Your task to perform on an android device: Go to network settings Image 0: 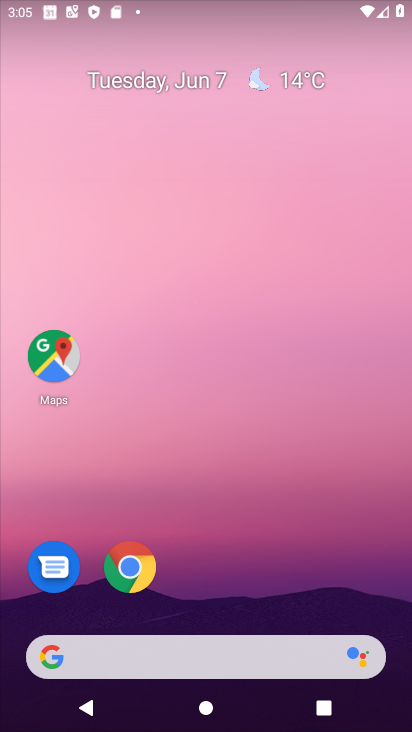
Step 0: drag from (196, 593) to (191, 240)
Your task to perform on an android device: Go to network settings Image 1: 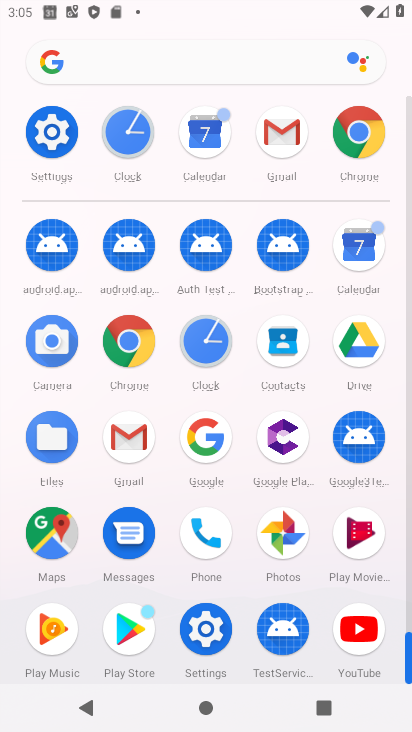
Step 1: click (77, 131)
Your task to perform on an android device: Go to network settings Image 2: 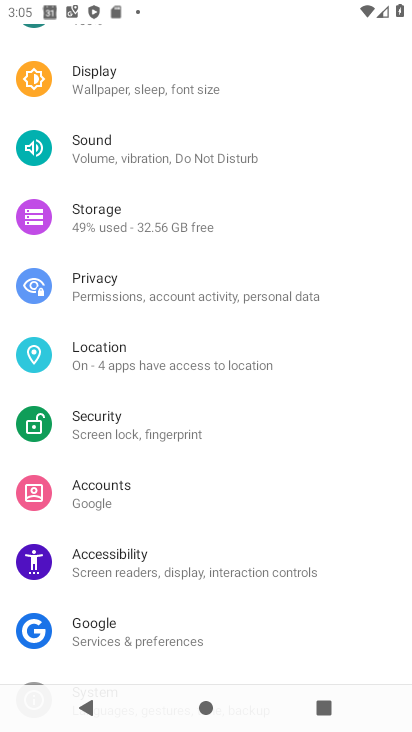
Step 2: drag from (169, 196) to (199, 509)
Your task to perform on an android device: Go to network settings Image 3: 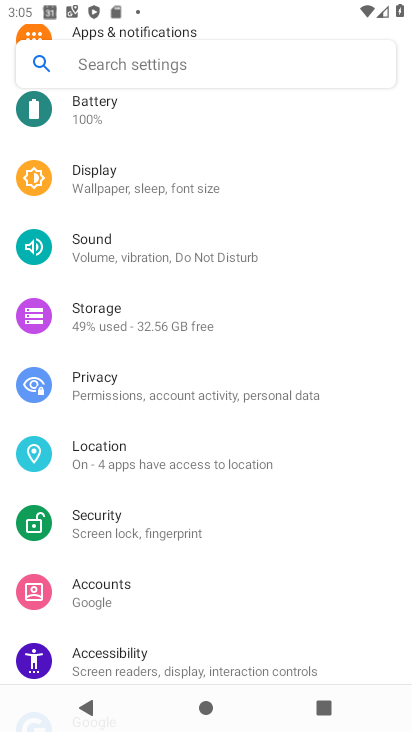
Step 3: drag from (176, 172) to (222, 462)
Your task to perform on an android device: Go to network settings Image 4: 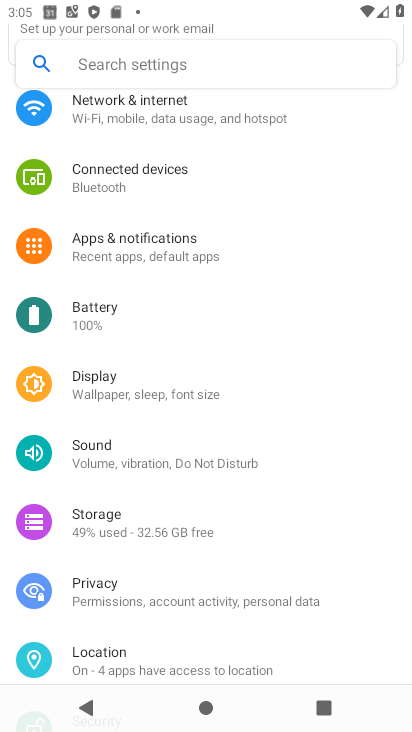
Step 4: click (210, 125)
Your task to perform on an android device: Go to network settings Image 5: 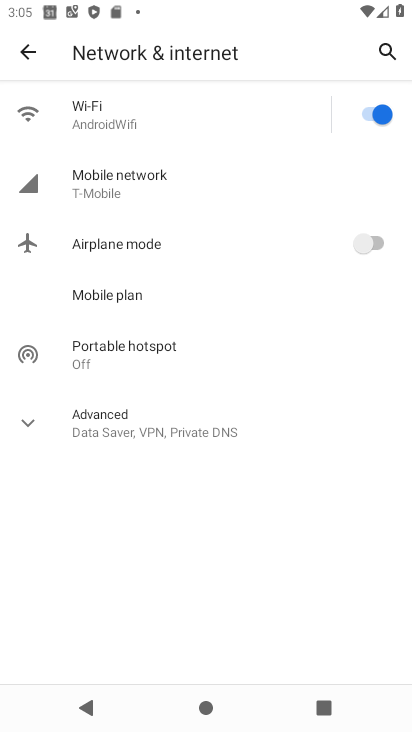
Step 5: click (148, 187)
Your task to perform on an android device: Go to network settings Image 6: 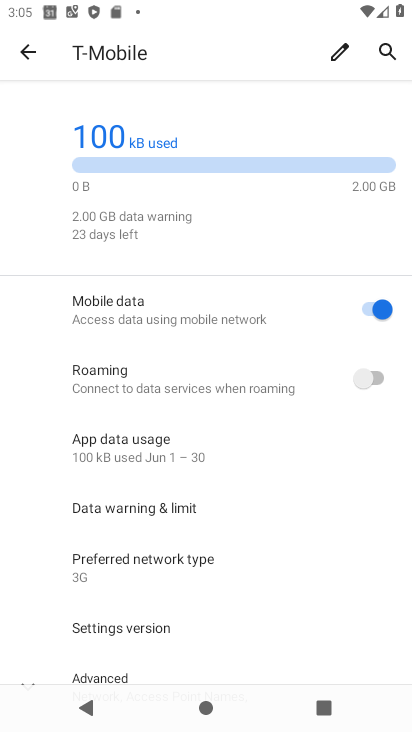
Step 6: task complete